Your task to perform on an android device: Go to battery settings Image 0: 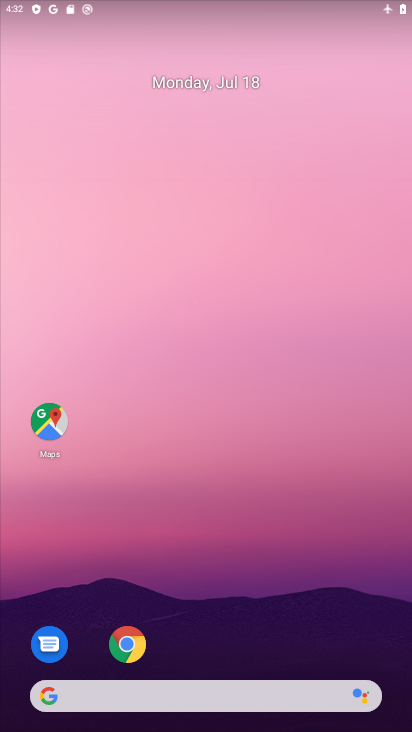
Step 0: press home button
Your task to perform on an android device: Go to battery settings Image 1: 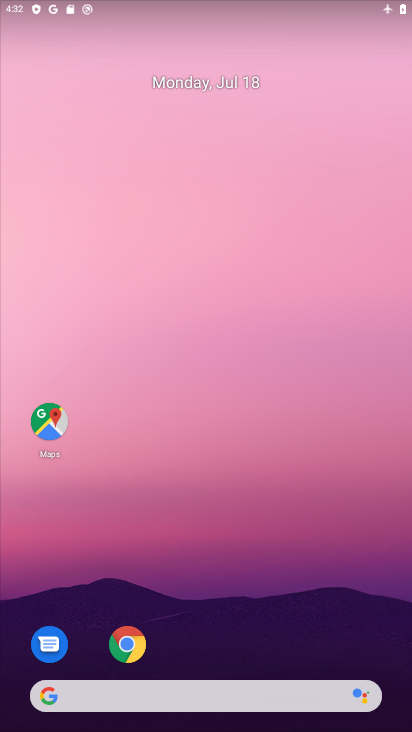
Step 1: drag from (220, 656) to (235, 5)
Your task to perform on an android device: Go to battery settings Image 2: 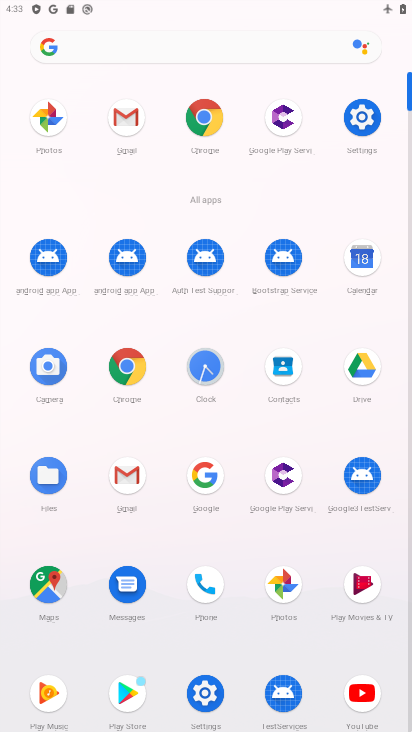
Step 2: click (350, 126)
Your task to perform on an android device: Go to battery settings Image 3: 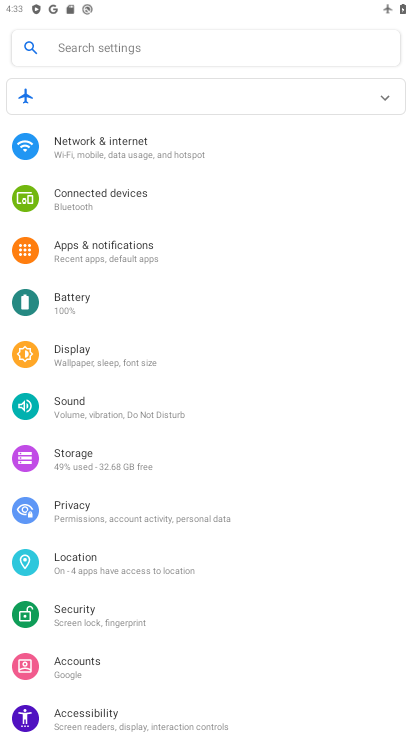
Step 3: click (66, 297)
Your task to perform on an android device: Go to battery settings Image 4: 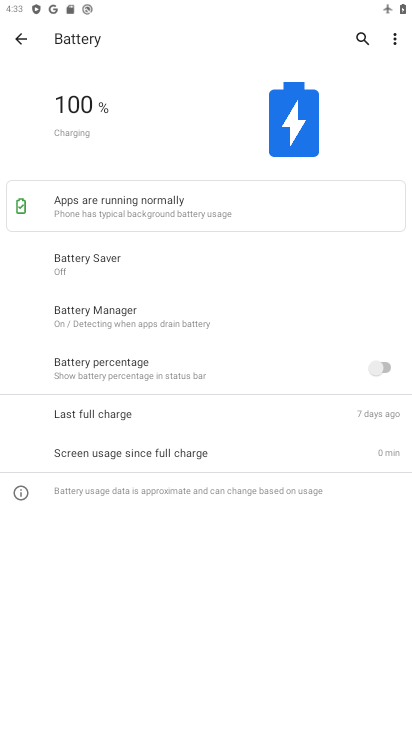
Step 4: task complete